Your task to perform on an android device: toggle pop-ups in chrome Image 0: 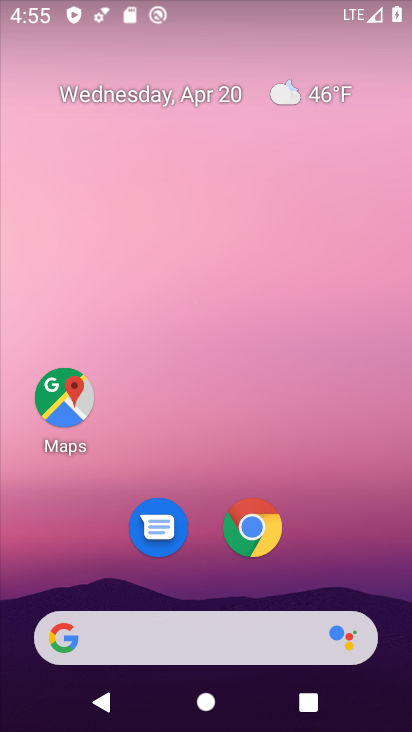
Step 0: click (261, 528)
Your task to perform on an android device: toggle pop-ups in chrome Image 1: 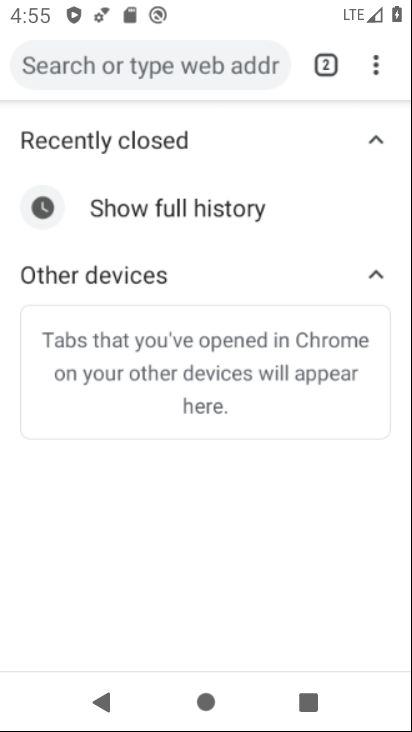
Step 1: click (377, 64)
Your task to perform on an android device: toggle pop-ups in chrome Image 2: 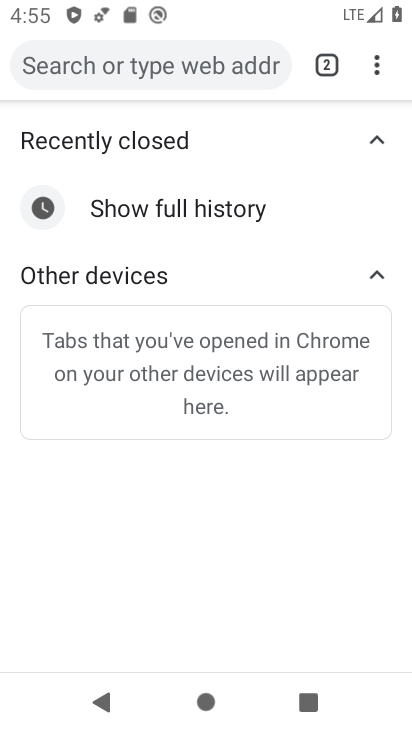
Step 2: click (377, 64)
Your task to perform on an android device: toggle pop-ups in chrome Image 3: 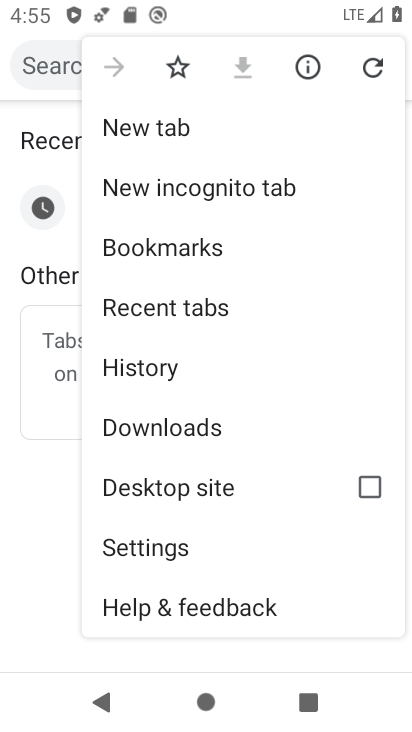
Step 3: click (189, 539)
Your task to perform on an android device: toggle pop-ups in chrome Image 4: 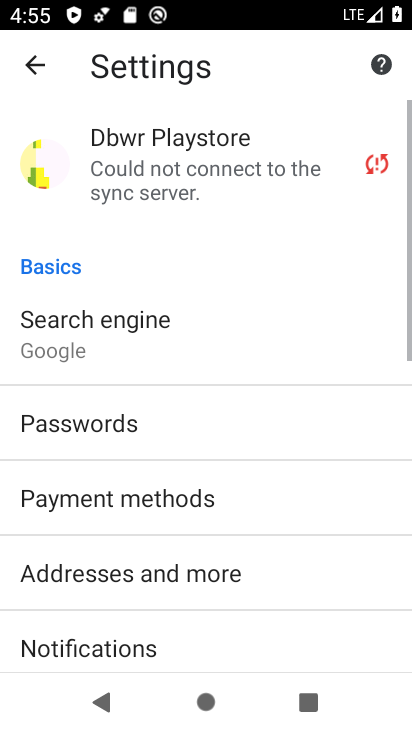
Step 4: drag from (268, 621) to (232, 180)
Your task to perform on an android device: toggle pop-ups in chrome Image 5: 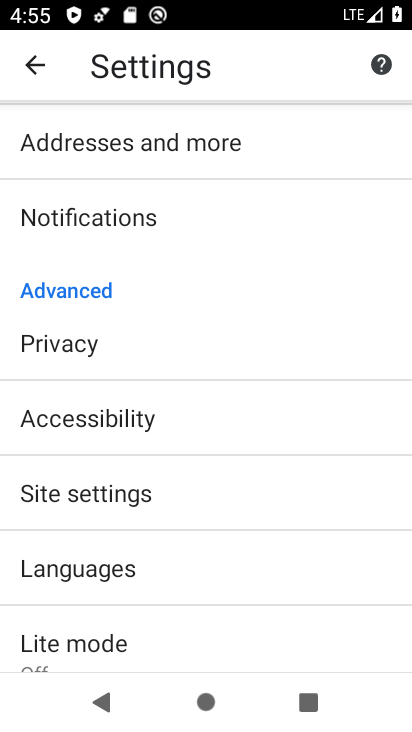
Step 5: click (161, 499)
Your task to perform on an android device: toggle pop-ups in chrome Image 6: 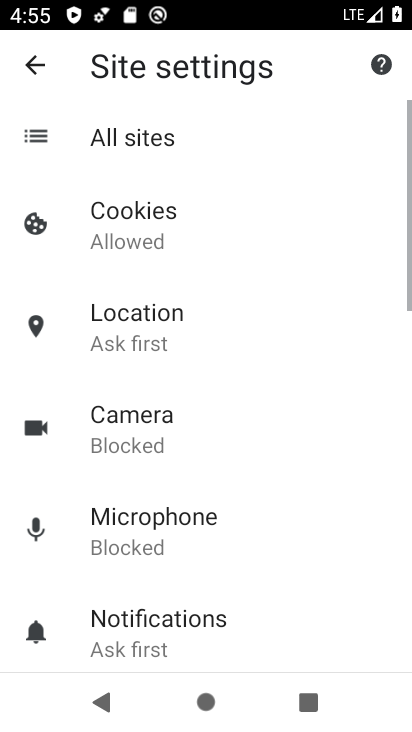
Step 6: drag from (241, 600) to (222, 188)
Your task to perform on an android device: toggle pop-ups in chrome Image 7: 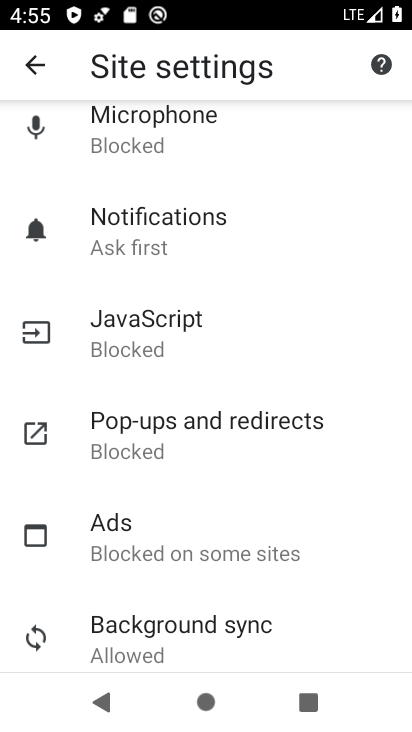
Step 7: click (196, 412)
Your task to perform on an android device: toggle pop-ups in chrome Image 8: 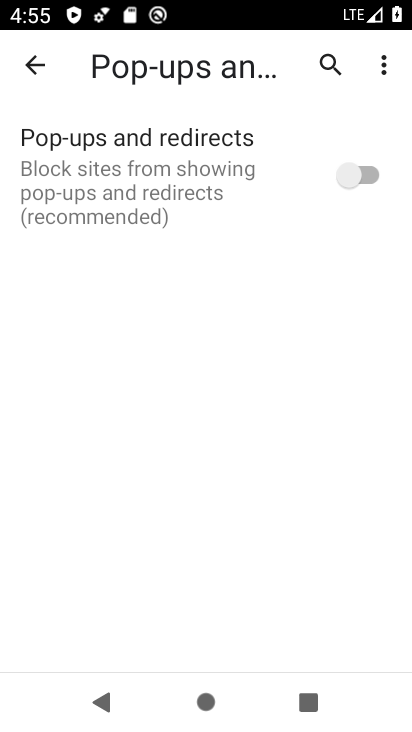
Step 8: click (356, 167)
Your task to perform on an android device: toggle pop-ups in chrome Image 9: 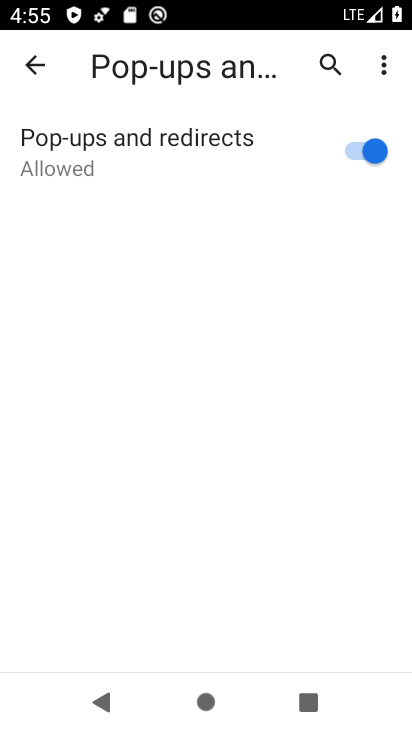
Step 9: task complete